Your task to perform on an android device: turn on airplane mode Image 0: 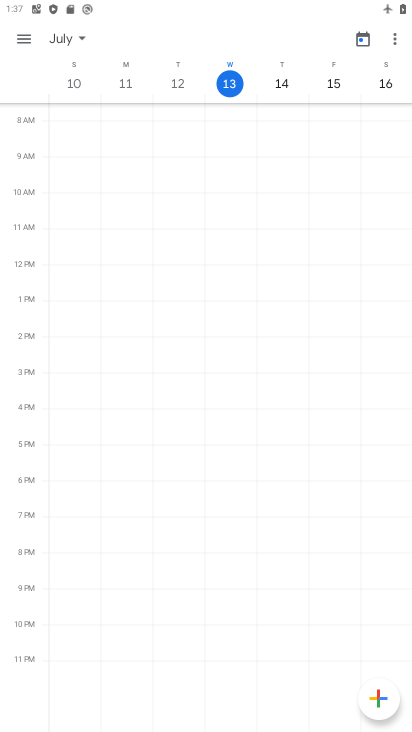
Step 0: press home button
Your task to perform on an android device: turn on airplane mode Image 1: 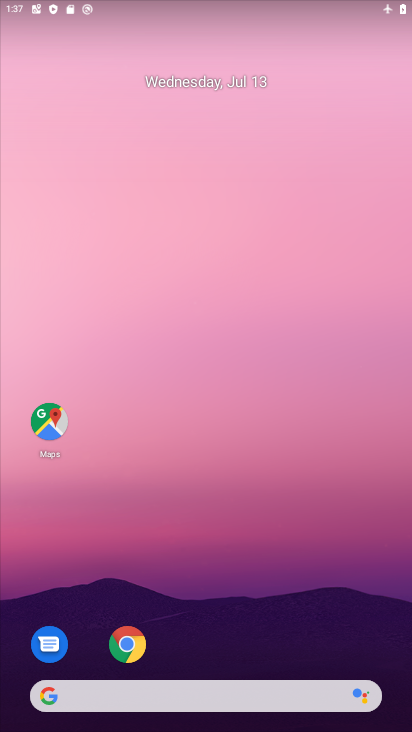
Step 1: drag from (289, 452) to (296, 157)
Your task to perform on an android device: turn on airplane mode Image 2: 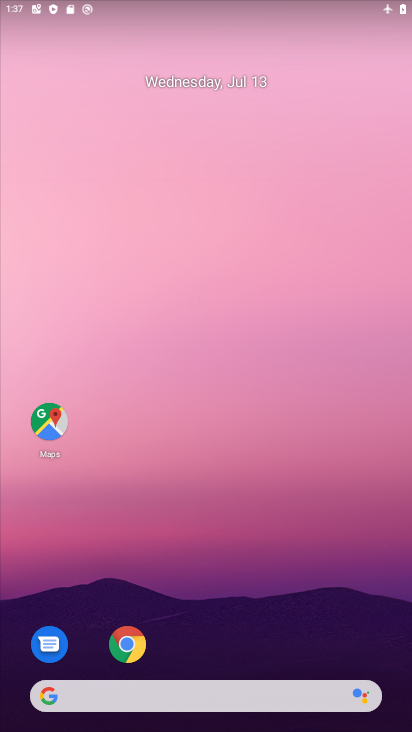
Step 2: drag from (319, 600) to (320, 132)
Your task to perform on an android device: turn on airplane mode Image 3: 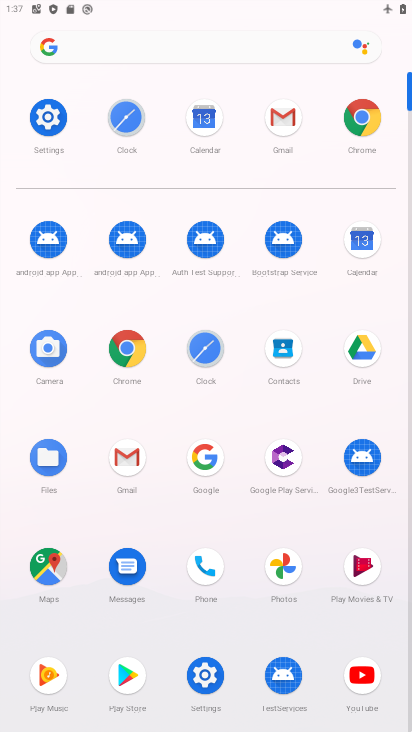
Step 3: click (54, 117)
Your task to perform on an android device: turn on airplane mode Image 4: 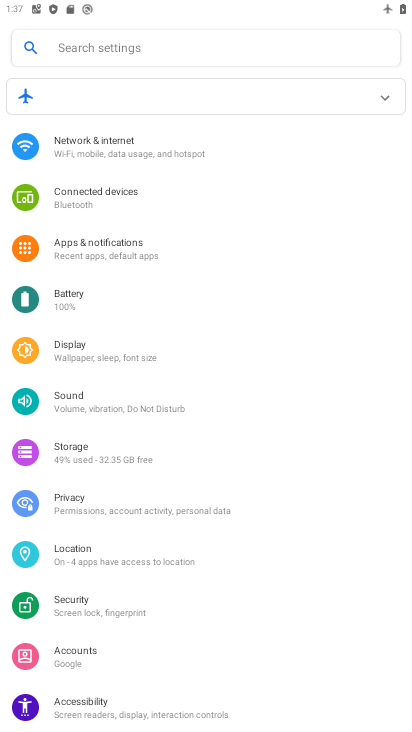
Step 4: click (122, 155)
Your task to perform on an android device: turn on airplane mode Image 5: 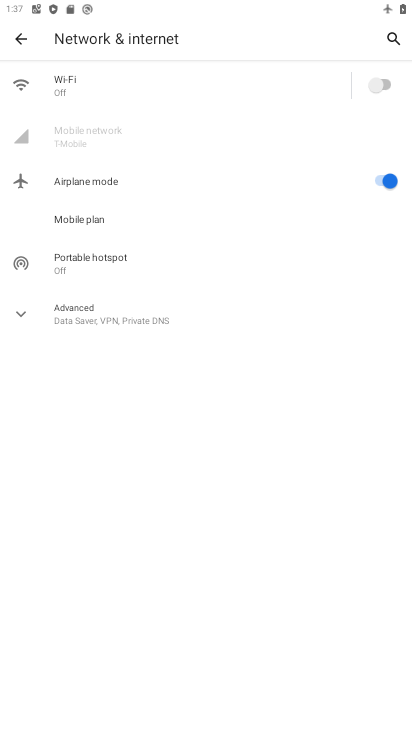
Step 5: task complete